Your task to perform on an android device: check android version Image 0: 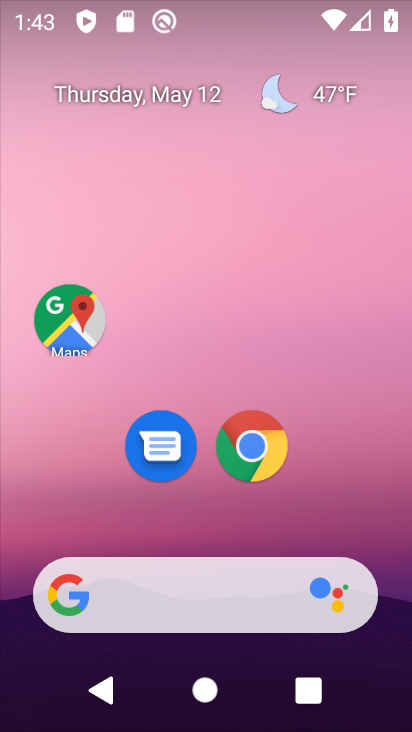
Step 0: drag from (203, 539) to (172, 16)
Your task to perform on an android device: check android version Image 1: 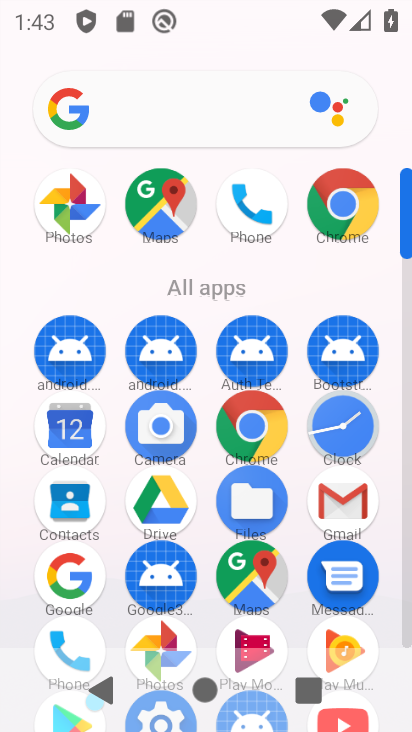
Step 1: drag from (200, 533) to (178, 172)
Your task to perform on an android device: check android version Image 2: 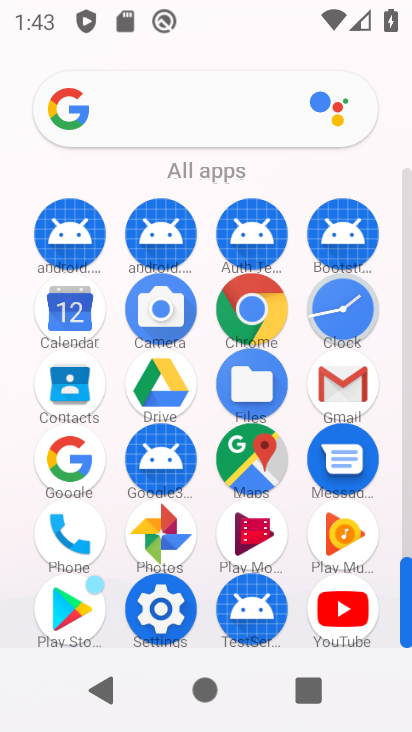
Step 2: click (146, 616)
Your task to perform on an android device: check android version Image 3: 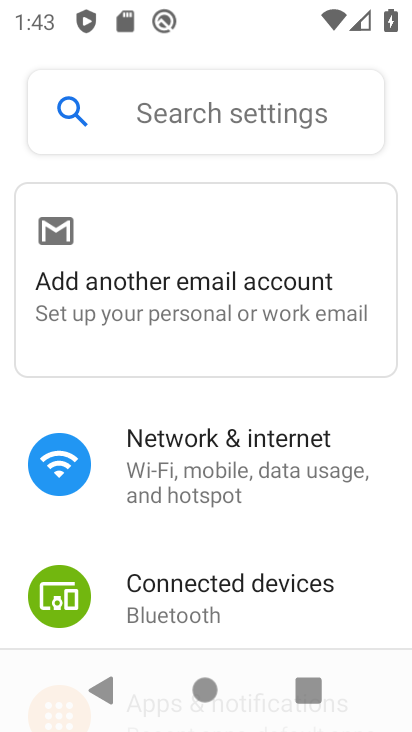
Step 3: drag from (206, 495) to (166, 6)
Your task to perform on an android device: check android version Image 4: 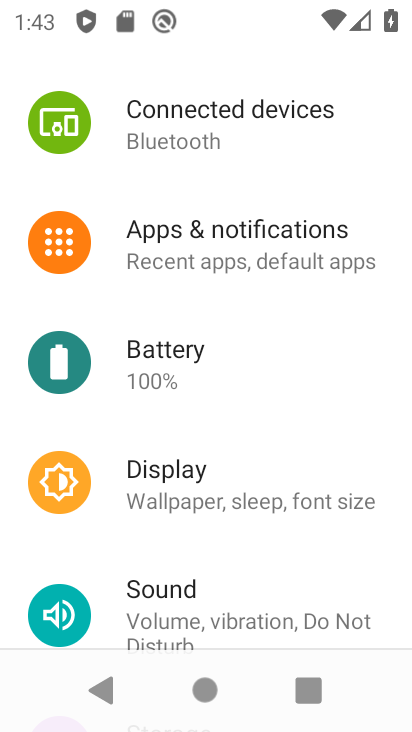
Step 4: drag from (271, 545) to (208, 28)
Your task to perform on an android device: check android version Image 5: 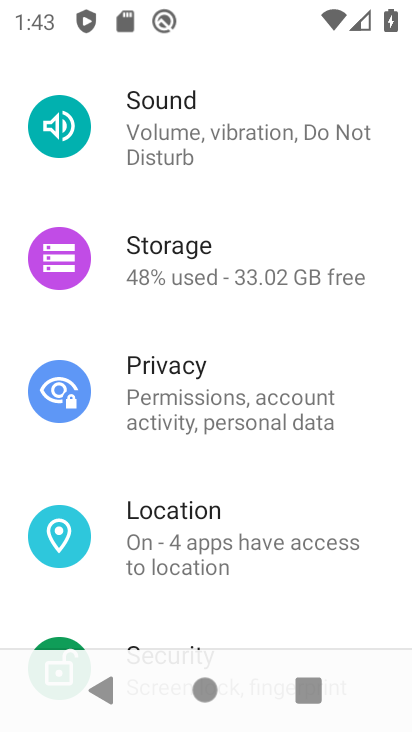
Step 5: drag from (276, 590) to (201, 67)
Your task to perform on an android device: check android version Image 6: 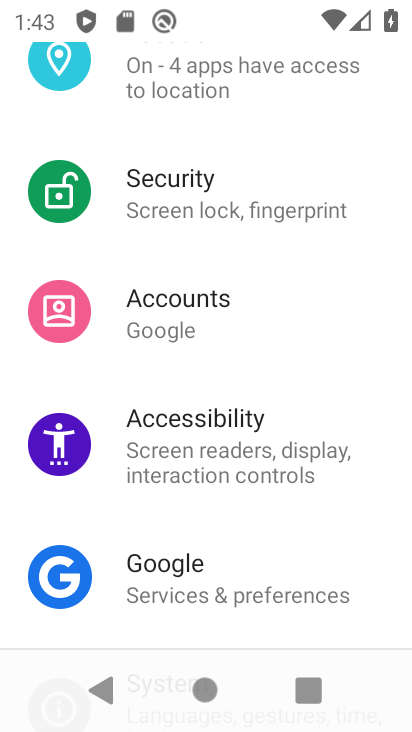
Step 6: drag from (192, 587) to (124, 90)
Your task to perform on an android device: check android version Image 7: 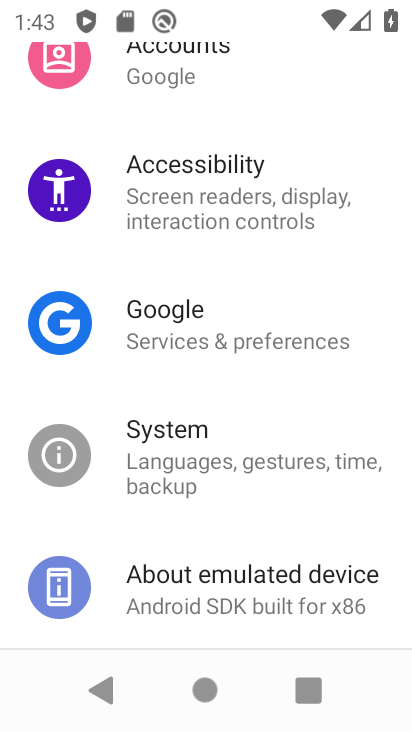
Step 7: click (213, 574)
Your task to perform on an android device: check android version Image 8: 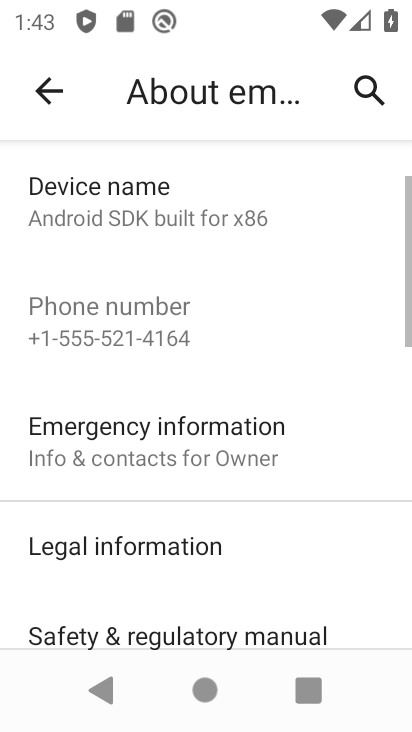
Step 8: drag from (206, 481) to (146, 122)
Your task to perform on an android device: check android version Image 9: 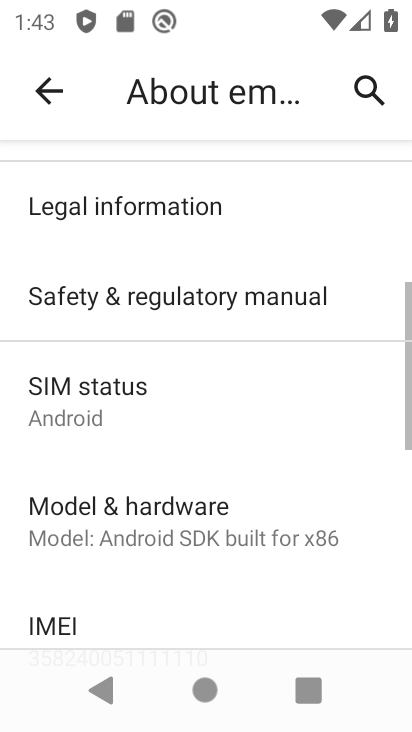
Step 9: drag from (163, 554) to (150, 216)
Your task to perform on an android device: check android version Image 10: 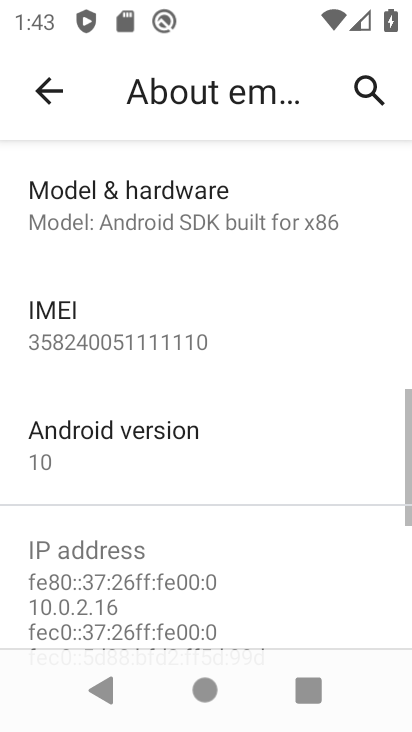
Step 10: click (155, 485)
Your task to perform on an android device: check android version Image 11: 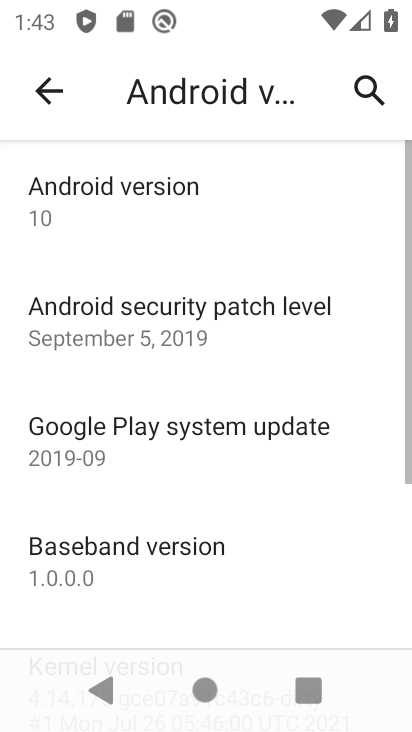
Step 11: click (142, 232)
Your task to perform on an android device: check android version Image 12: 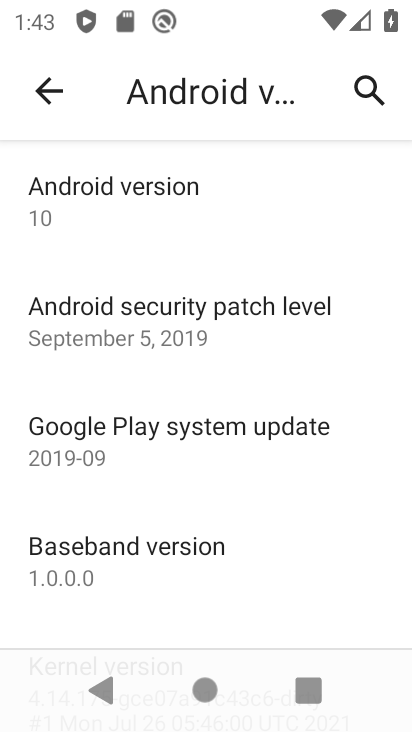
Step 12: task complete